Your task to perform on an android device: toggle priority inbox in the gmail app Image 0: 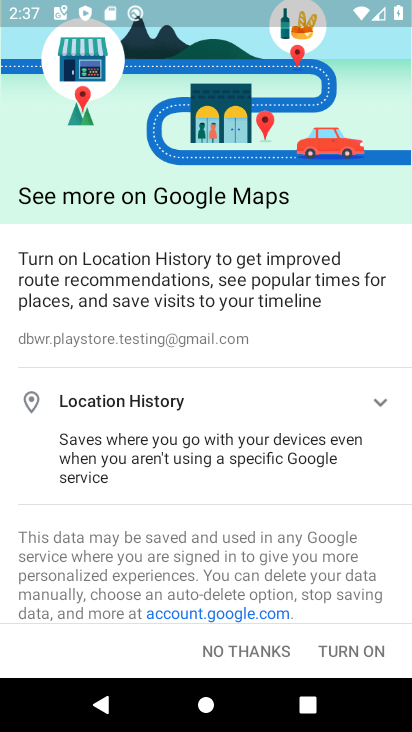
Step 0: press back button
Your task to perform on an android device: toggle priority inbox in the gmail app Image 1: 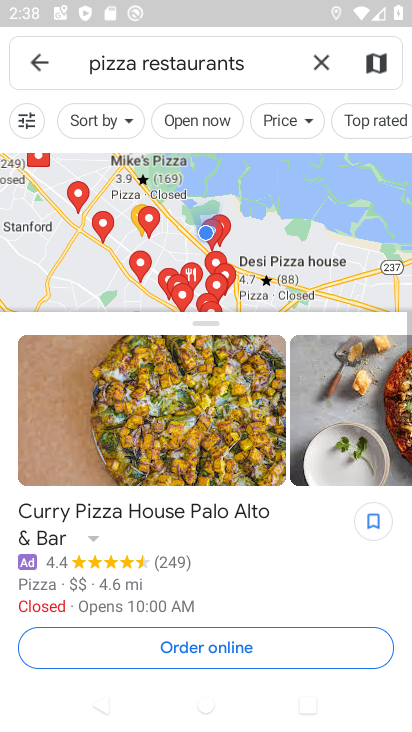
Step 1: press back button
Your task to perform on an android device: toggle priority inbox in the gmail app Image 2: 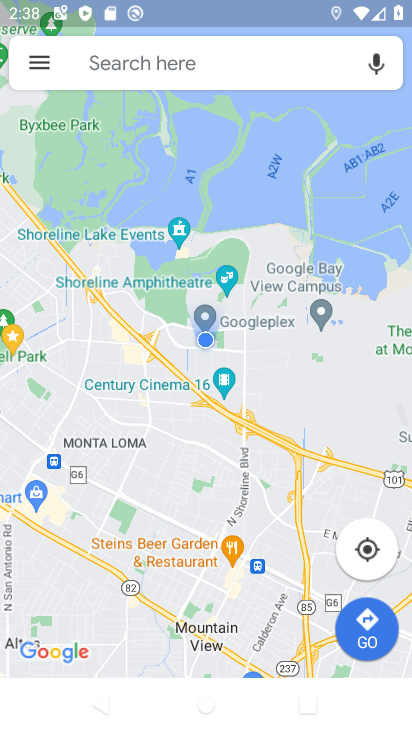
Step 2: press back button
Your task to perform on an android device: toggle priority inbox in the gmail app Image 3: 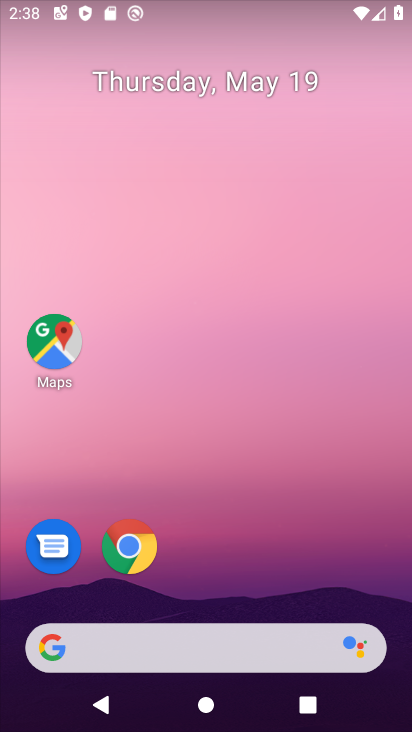
Step 3: drag from (229, 555) to (176, 41)
Your task to perform on an android device: toggle priority inbox in the gmail app Image 4: 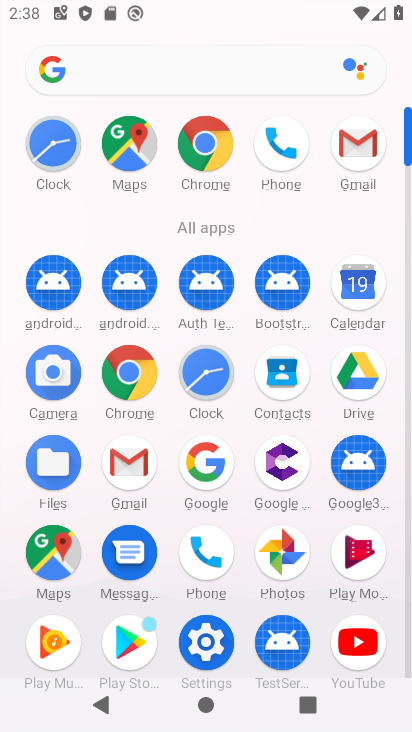
Step 4: click (357, 141)
Your task to perform on an android device: toggle priority inbox in the gmail app Image 5: 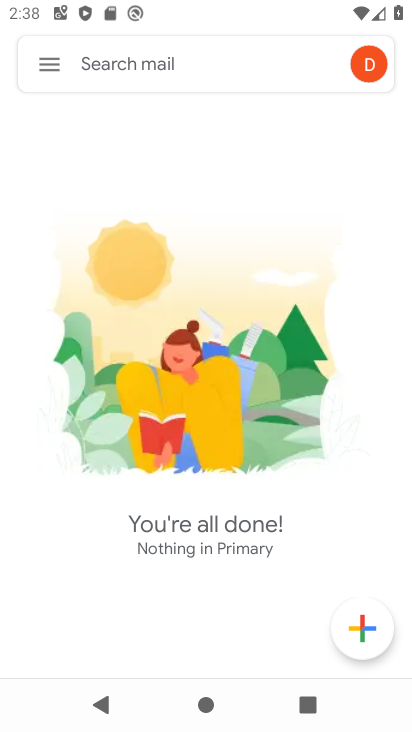
Step 5: click (50, 63)
Your task to perform on an android device: toggle priority inbox in the gmail app Image 6: 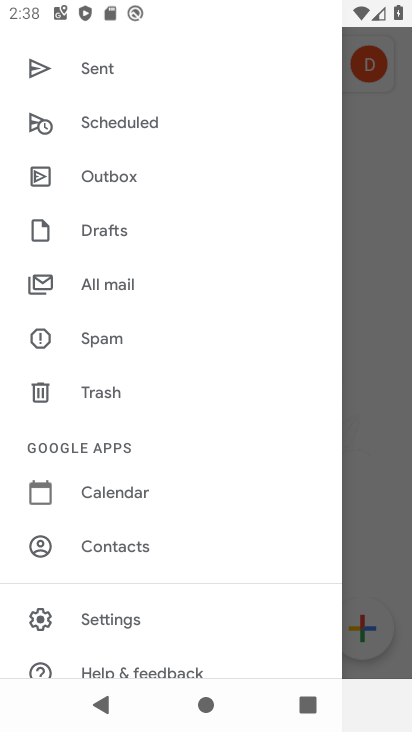
Step 6: click (124, 619)
Your task to perform on an android device: toggle priority inbox in the gmail app Image 7: 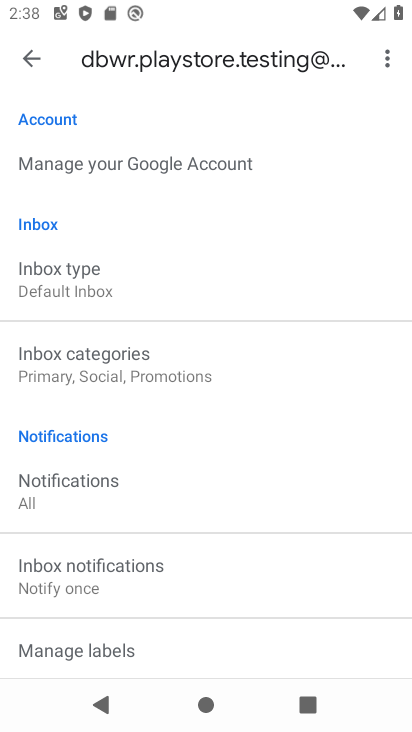
Step 7: click (48, 280)
Your task to perform on an android device: toggle priority inbox in the gmail app Image 8: 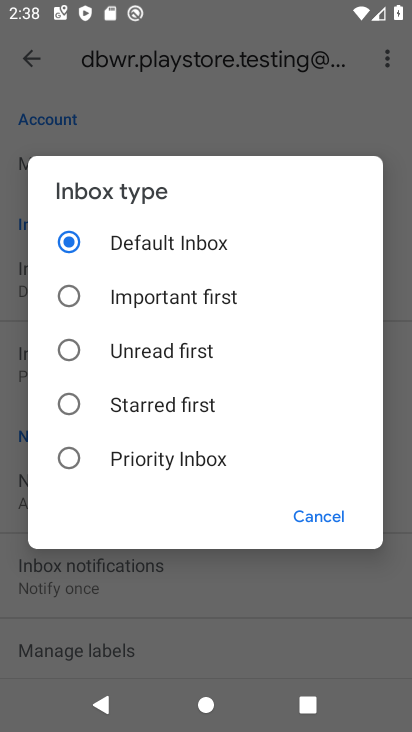
Step 8: click (76, 456)
Your task to perform on an android device: toggle priority inbox in the gmail app Image 9: 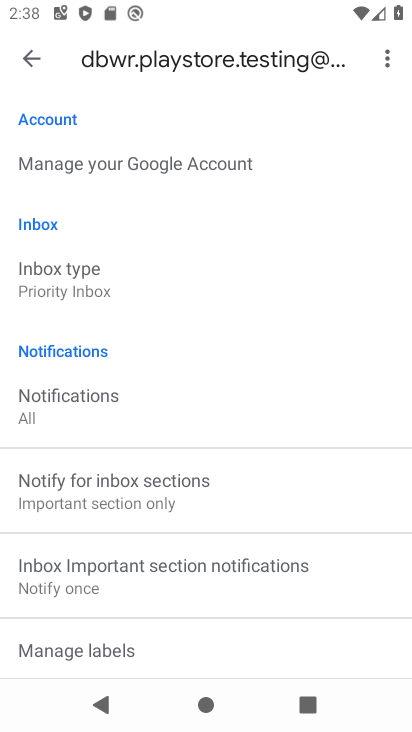
Step 9: task complete